Your task to perform on an android device: change the clock display to analog Image 0: 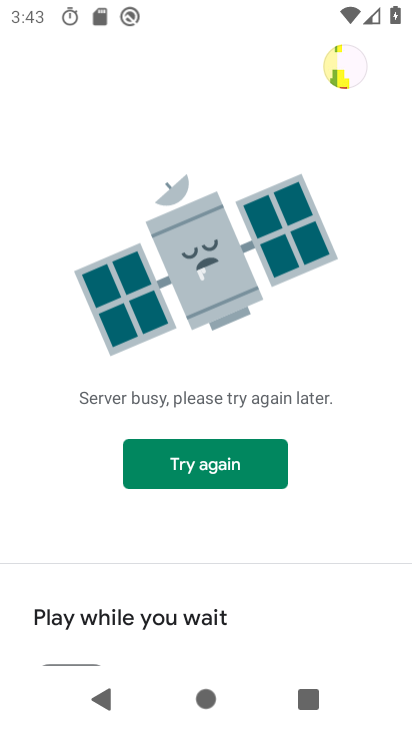
Step 0: press back button
Your task to perform on an android device: change the clock display to analog Image 1: 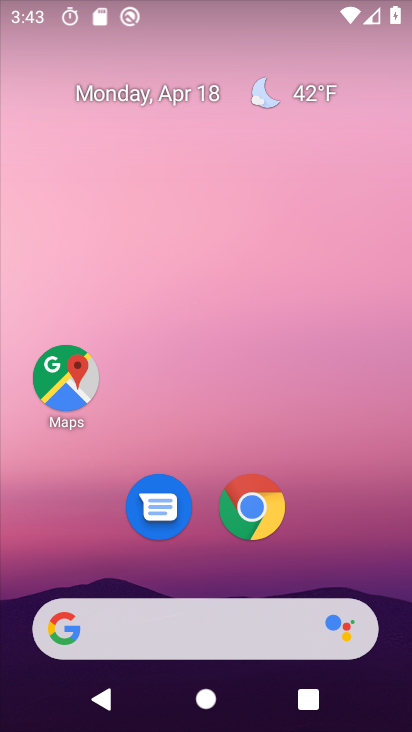
Step 1: drag from (317, 548) to (308, 0)
Your task to perform on an android device: change the clock display to analog Image 2: 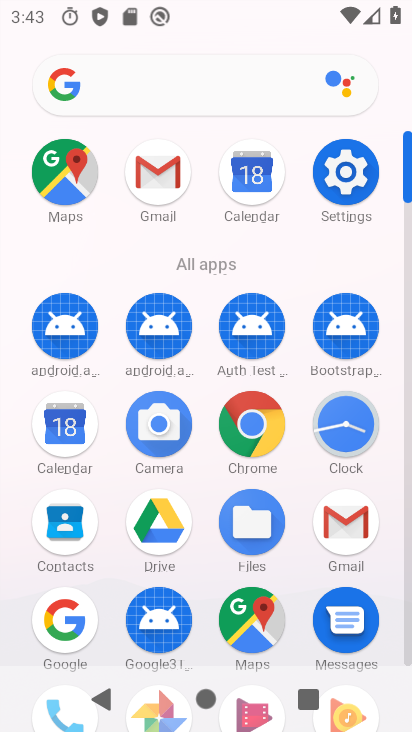
Step 2: click (341, 429)
Your task to perform on an android device: change the clock display to analog Image 3: 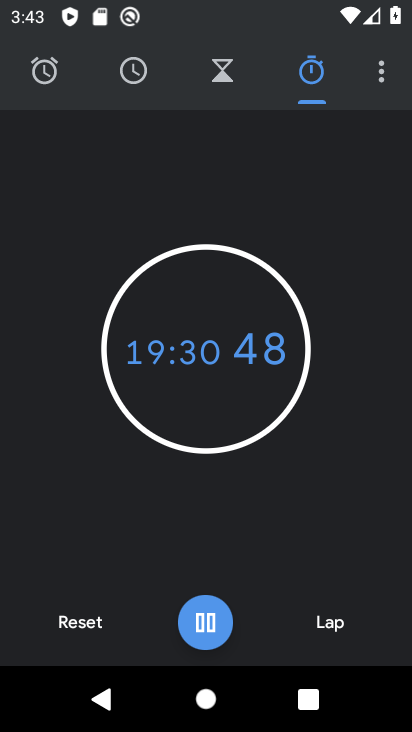
Step 3: click (372, 76)
Your task to perform on an android device: change the clock display to analog Image 4: 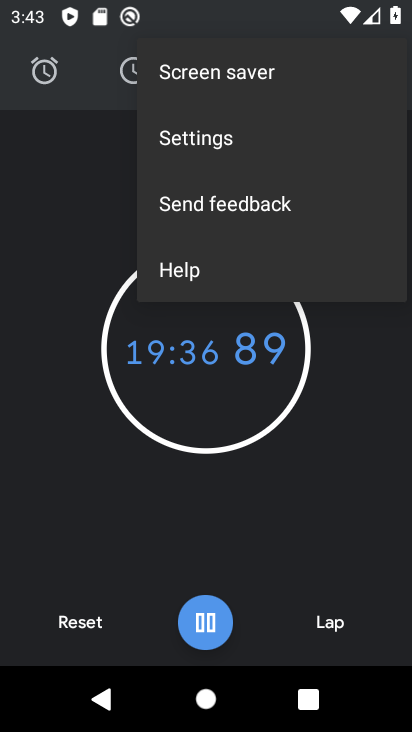
Step 4: click (332, 133)
Your task to perform on an android device: change the clock display to analog Image 5: 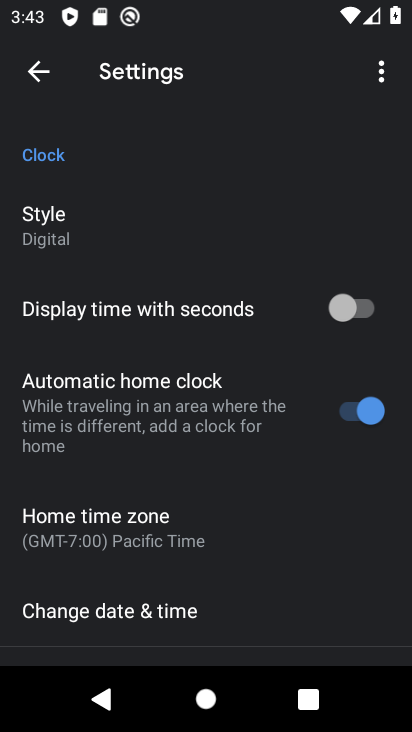
Step 5: click (224, 222)
Your task to perform on an android device: change the clock display to analog Image 6: 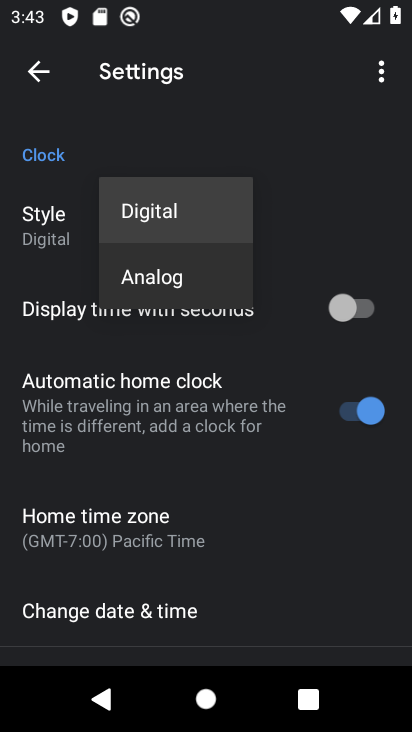
Step 6: click (135, 274)
Your task to perform on an android device: change the clock display to analog Image 7: 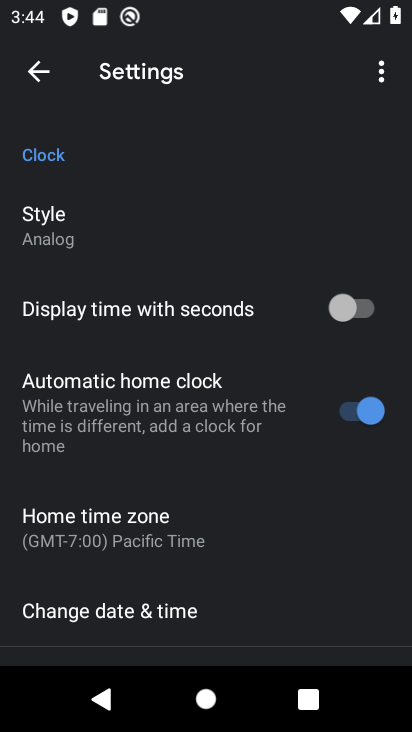
Step 7: task complete